Your task to perform on an android device: allow cookies in the chrome app Image 0: 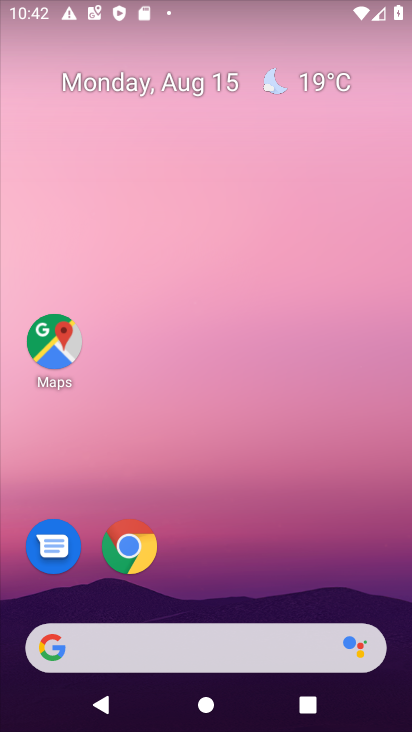
Step 0: click (132, 550)
Your task to perform on an android device: allow cookies in the chrome app Image 1: 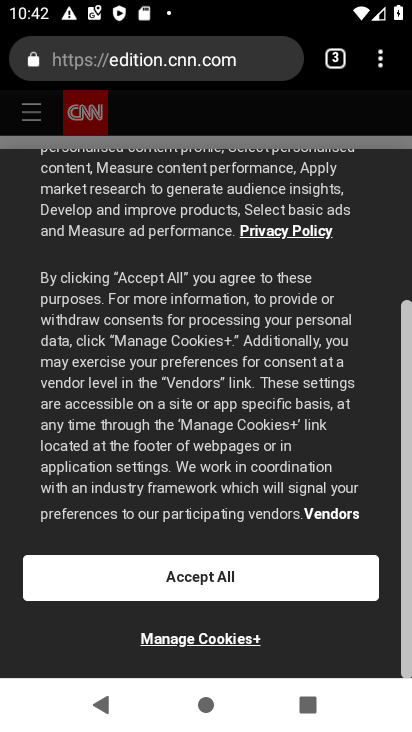
Step 1: click (380, 69)
Your task to perform on an android device: allow cookies in the chrome app Image 2: 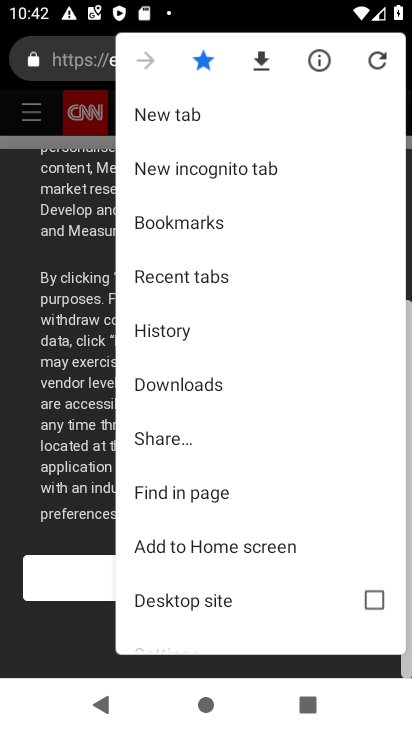
Step 2: click (170, 328)
Your task to perform on an android device: allow cookies in the chrome app Image 3: 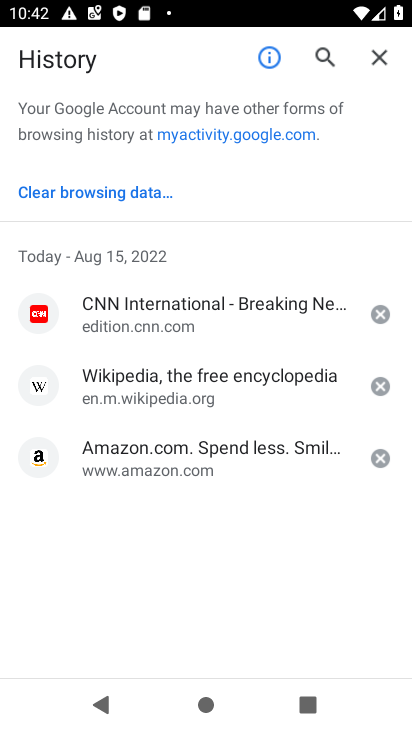
Step 3: click (113, 193)
Your task to perform on an android device: allow cookies in the chrome app Image 4: 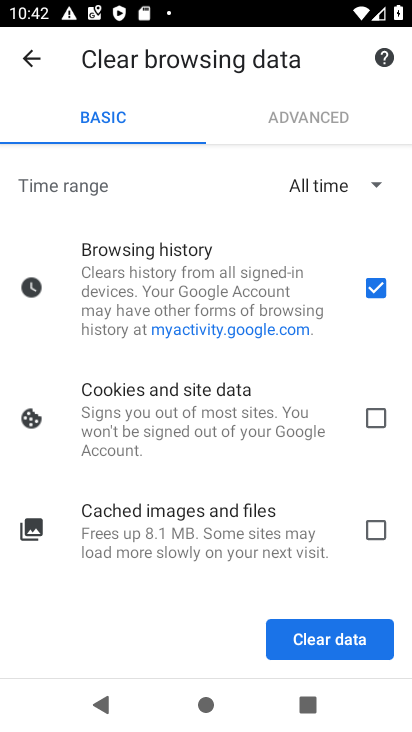
Step 4: click (379, 278)
Your task to perform on an android device: allow cookies in the chrome app Image 5: 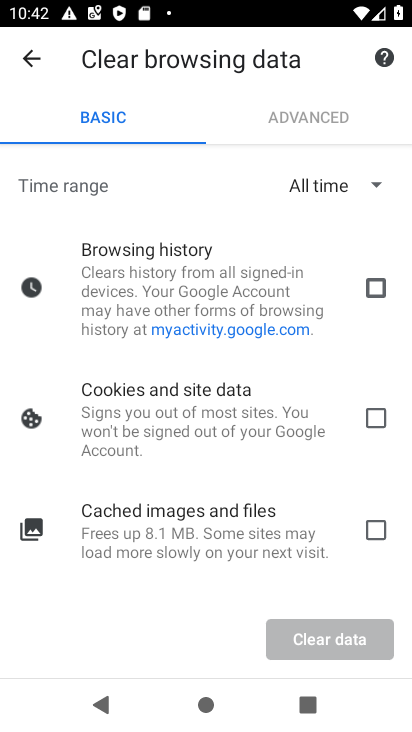
Step 5: click (371, 419)
Your task to perform on an android device: allow cookies in the chrome app Image 6: 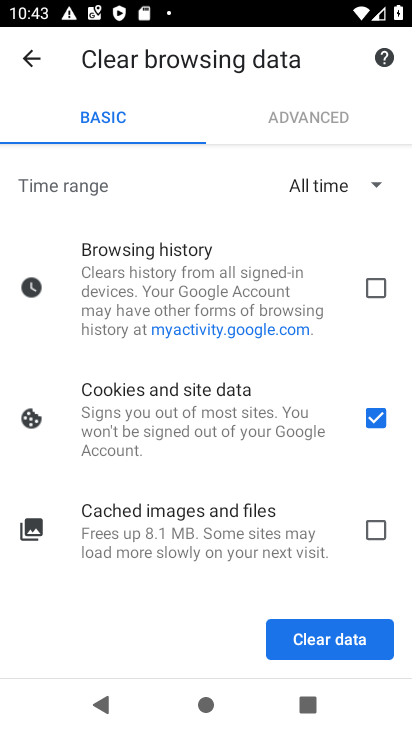
Step 6: click (329, 636)
Your task to perform on an android device: allow cookies in the chrome app Image 7: 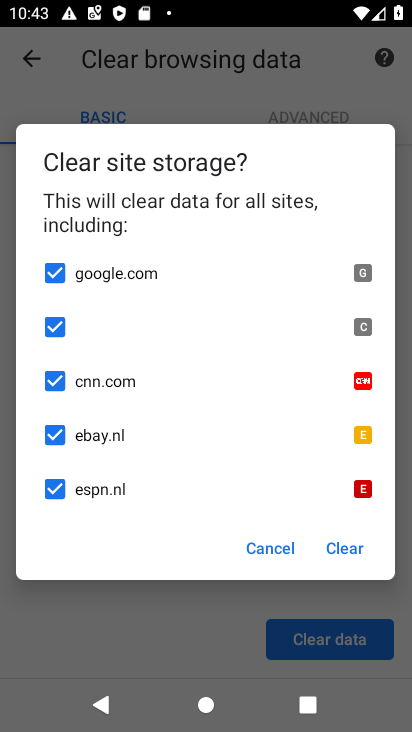
Step 7: click (349, 550)
Your task to perform on an android device: allow cookies in the chrome app Image 8: 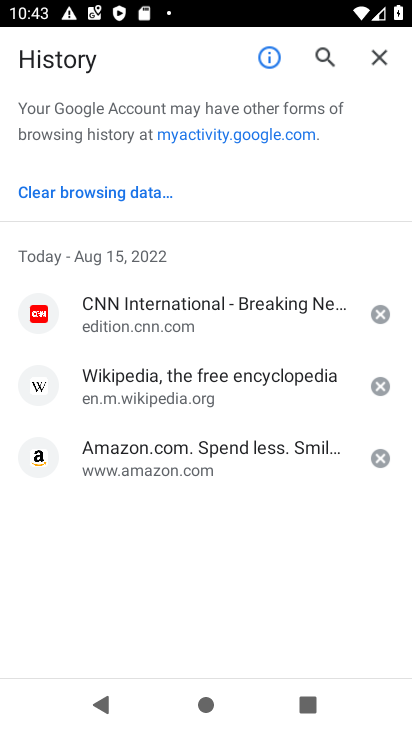
Step 8: task complete